Your task to perform on an android device: Is it going to rain today? Image 0: 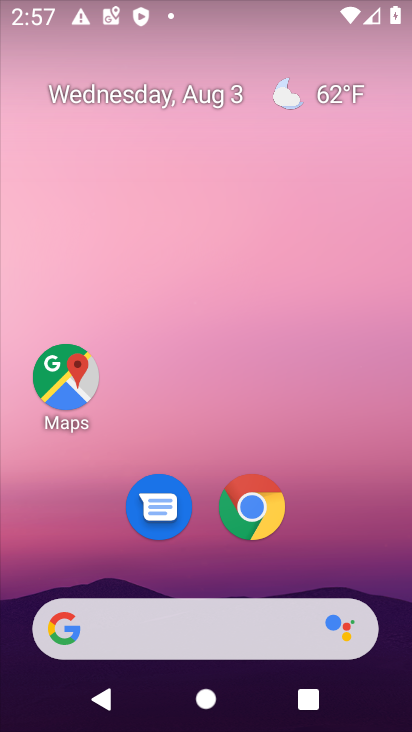
Step 0: click (268, 509)
Your task to perform on an android device: Is it going to rain today? Image 1: 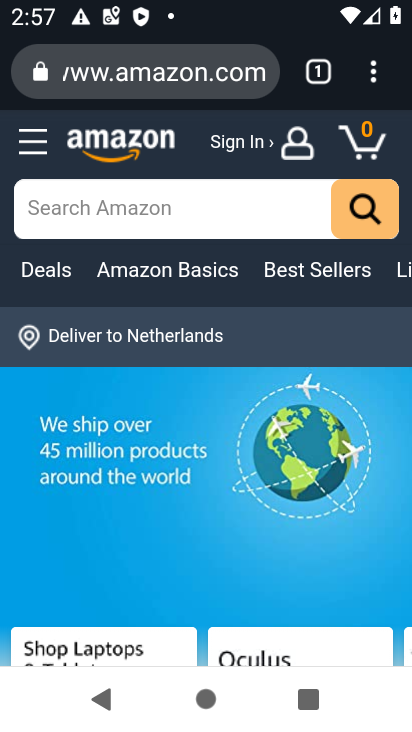
Step 1: click (321, 83)
Your task to perform on an android device: Is it going to rain today? Image 2: 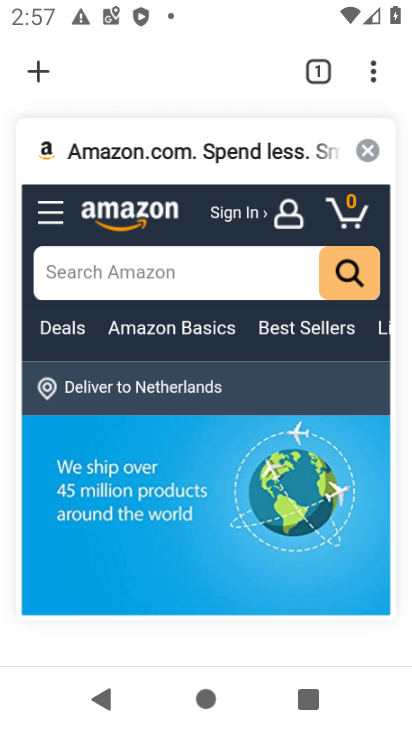
Step 2: click (46, 77)
Your task to perform on an android device: Is it going to rain today? Image 3: 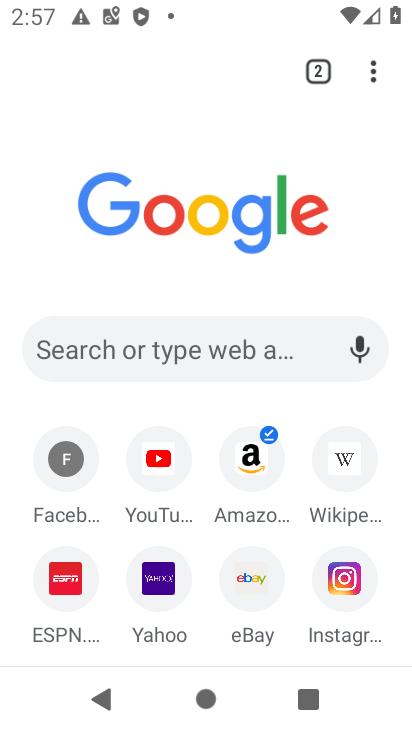
Step 3: click (191, 353)
Your task to perform on an android device: Is it going to rain today? Image 4: 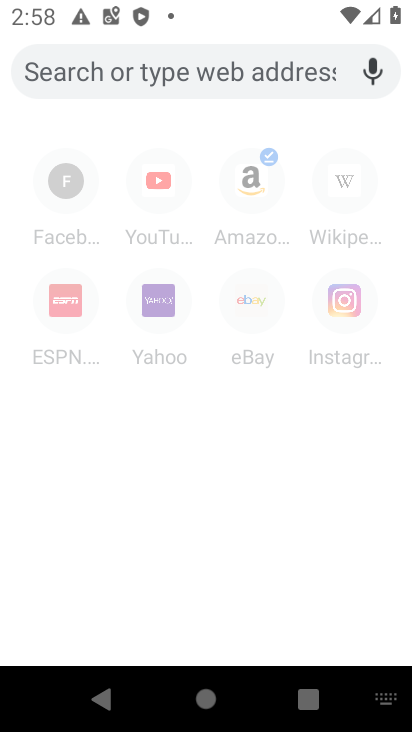
Step 4: type "is it going to rain today?"
Your task to perform on an android device: Is it going to rain today? Image 5: 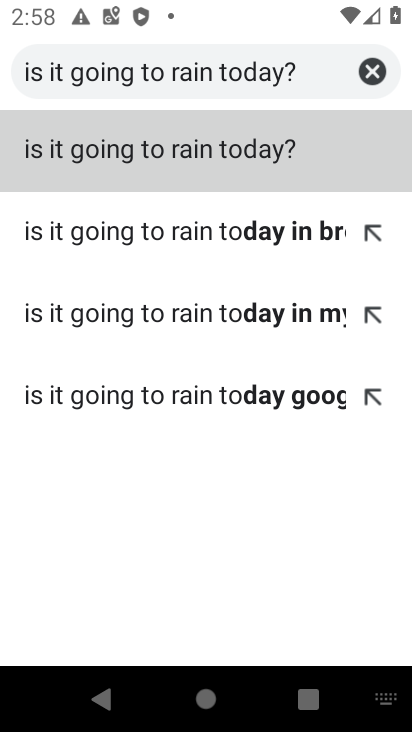
Step 5: click (237, 166)
Your task to perform on an android device: Is it going to rain today? Image 6: 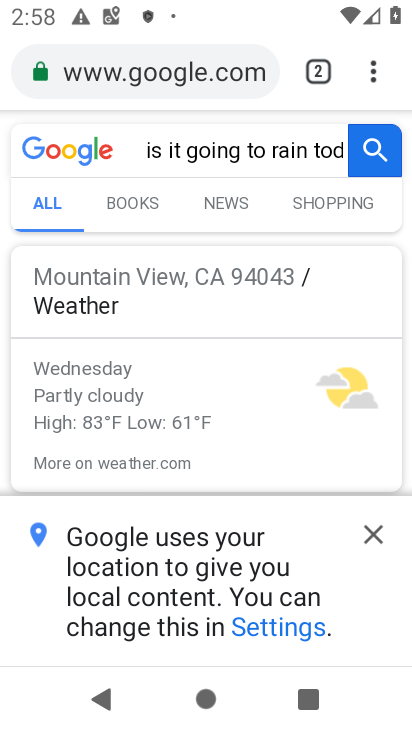
Step 6: task complete